Your task to perform on an android device: Go to calendar. Show me events next week Image 0: 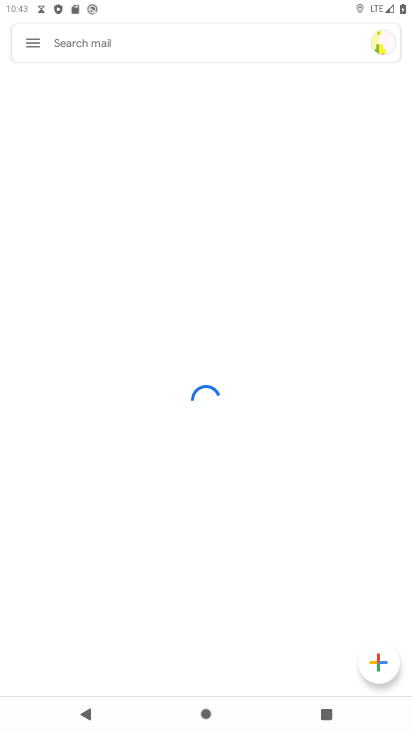
Step 0: press home button
Your task to perform on an android device: Go to calendar. Show me events next week Image 1: 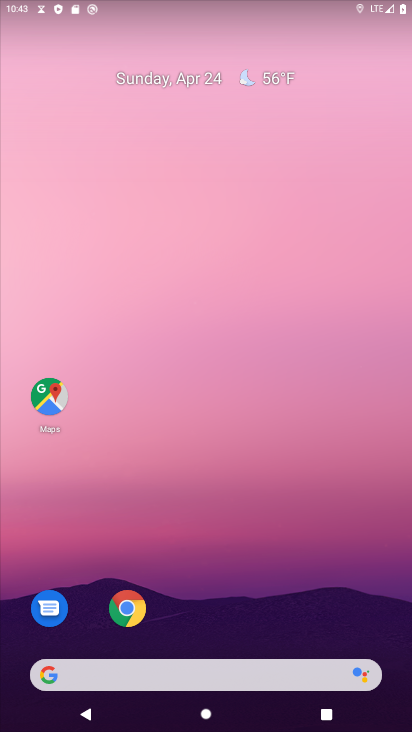
Step 1: drag from (205, 646) to (232, 60)
Your task to perform on an android device: Go to calendar. Show me events next week Image 2: 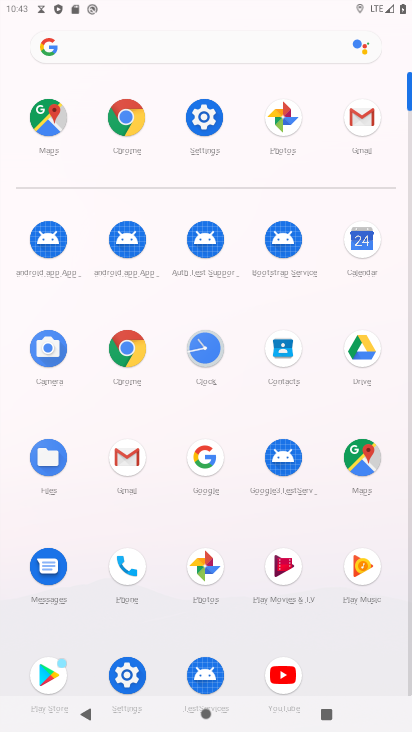
Step 2: click (357, 245)
Your task to perform on an android device: Go to calendar. Show me events next week Image 3: 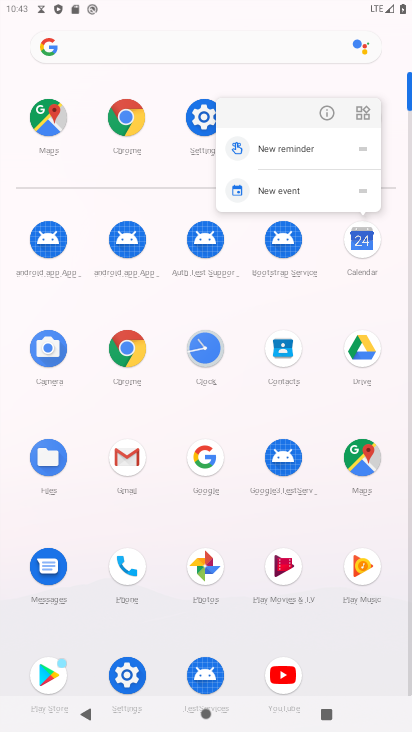
Step 3: click (357, 243)
Your task to perform on an android device: Go to calendar. Show me events next week Image 4: 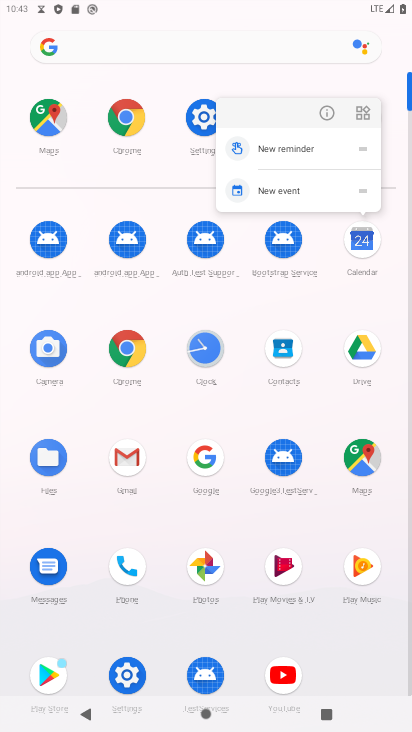
Step 4: click (365, 228)
Your task to perform on an android device: Go to calendar. Show me events next week Image 5: 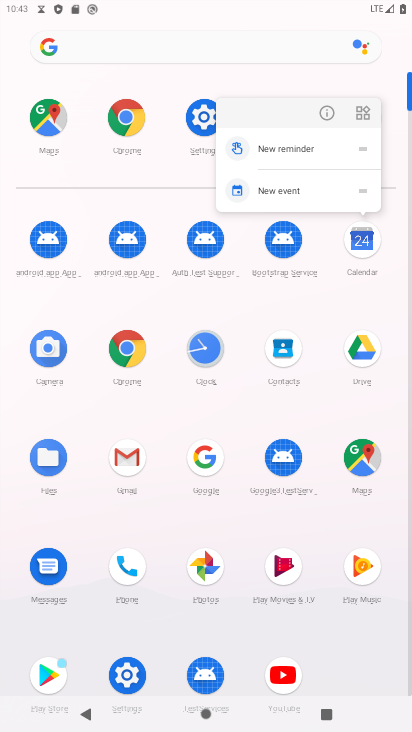
Step 5: click (368, 260)
Your task to perform on an android device: Go to calendar. Show me events next week Image 6: 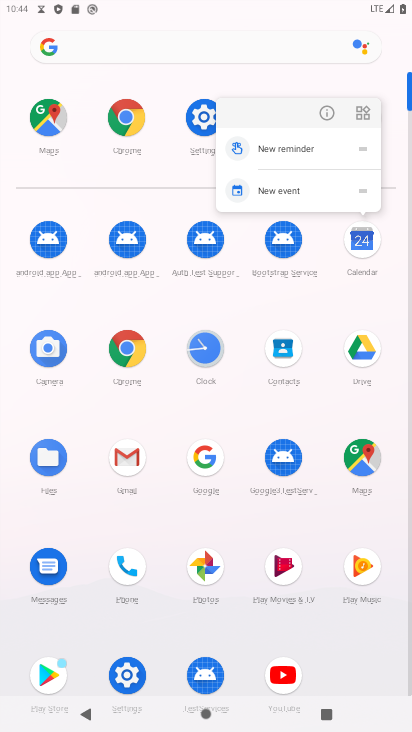
Step 6: click (364, 239)
Your task to perform on an android device: Go to calendar. Show me events next week Image 7: 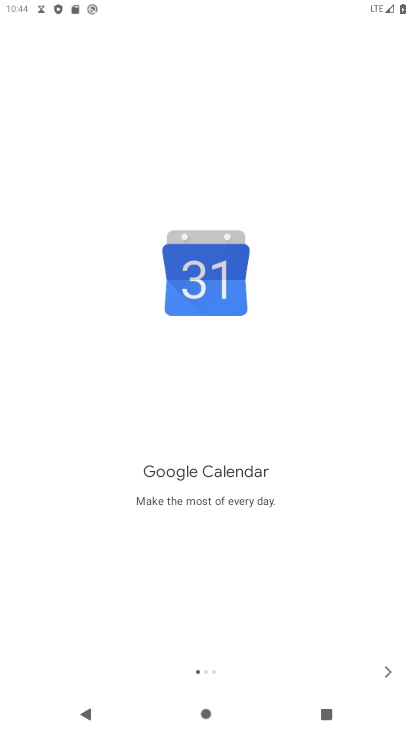
Step 7: click (387, 660)
Your task to perform on an android device: Go to calendar. Show me events next week Image 8: 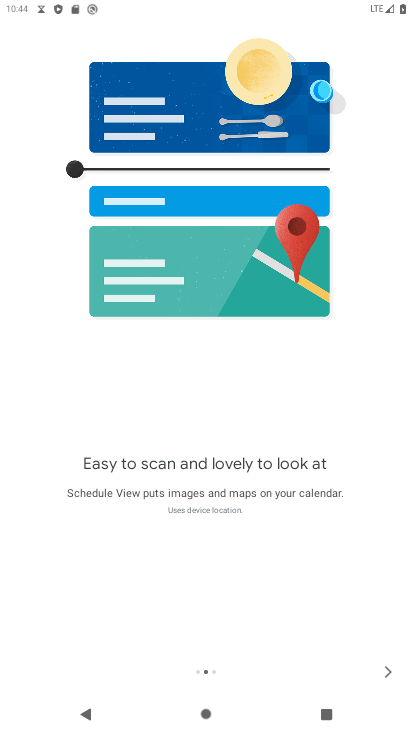
Step 8: click (384, 671)
Your task to perform on an android device: Go to calendar. Show me events next week Image 9: 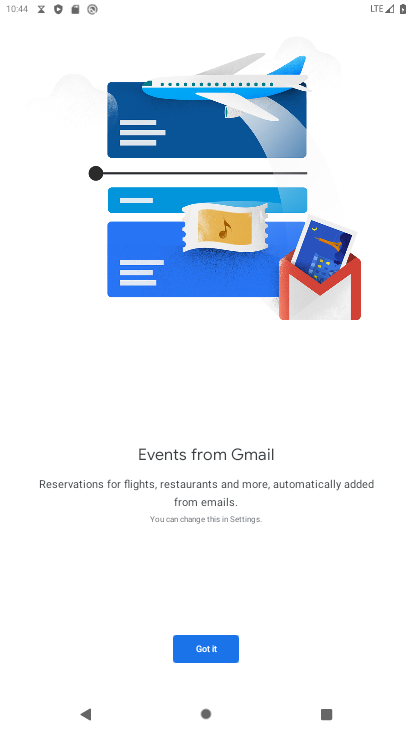
Step 9: click (226, 645)
Your task to perform on an android device: Go to calendar. Show me events next week Image 10: 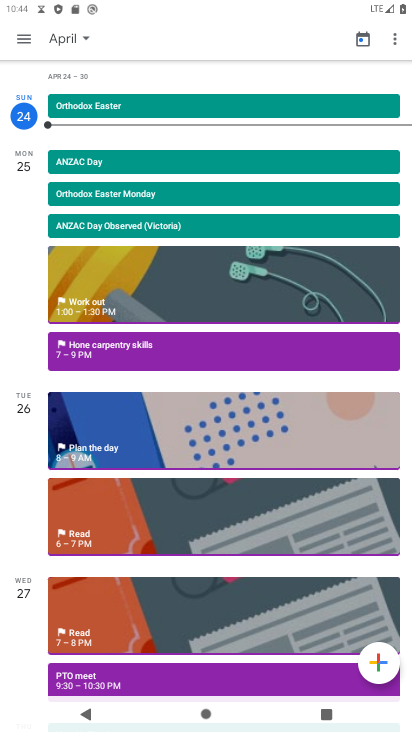
Step 10: click (20, 36)
Your task to perform on an android device: Go to calendar. Show me events next week Image 11: 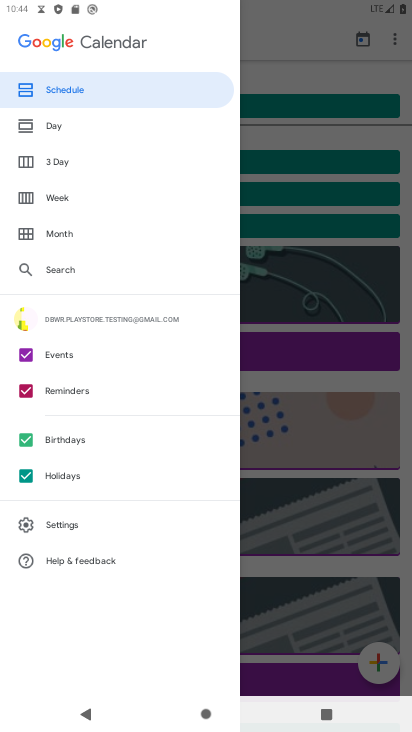
Step 11: click (66, 202)
Your task to perform on an android device: Go to calendar. Show me events next week Image 12: 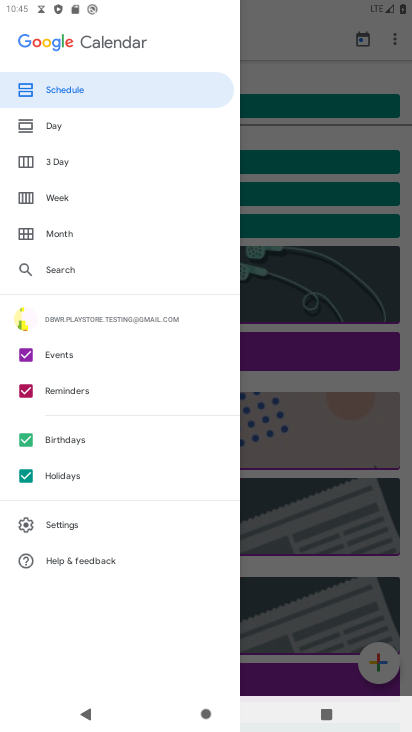
Step 12: click (66, 190)
Your task to perform on an android device: Go to calendar. Show me events next week Image 13: 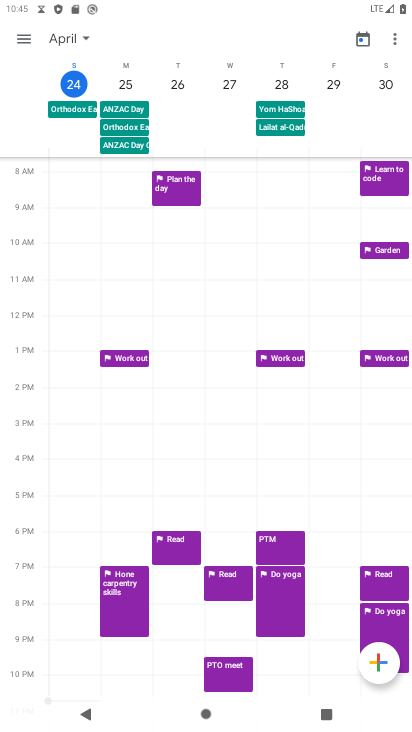
Step 13: task complete